Your task to perform on an android device: Go to settings Image 0: 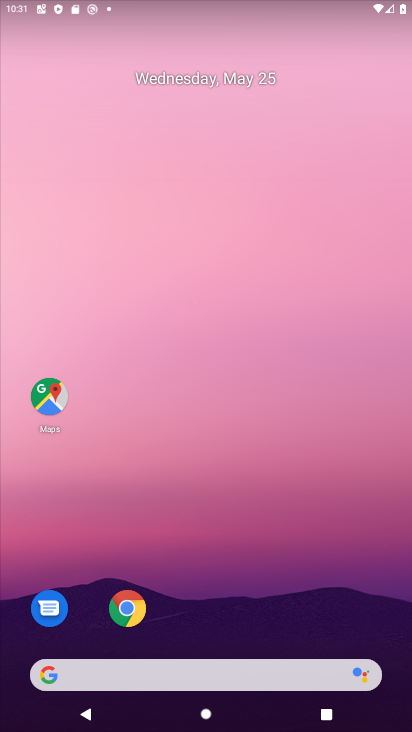
Step 0: drag from (265, 583) to (220, 122)
Your task to perform on an android device: Go to settings Image 1: 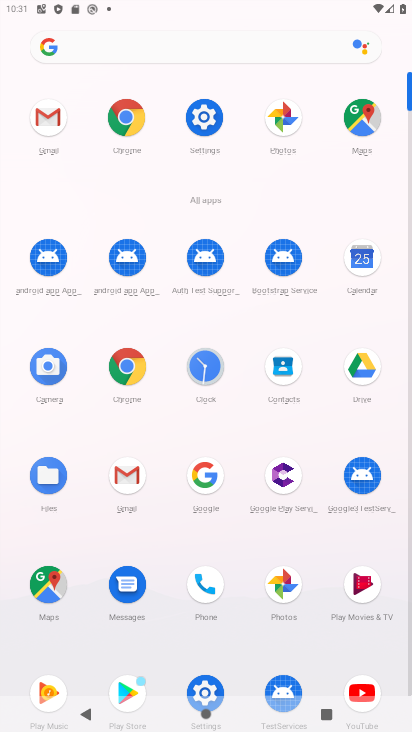
Step 1: click (205, 115)
Your task to perform on an android device: Go to settings Image 2: 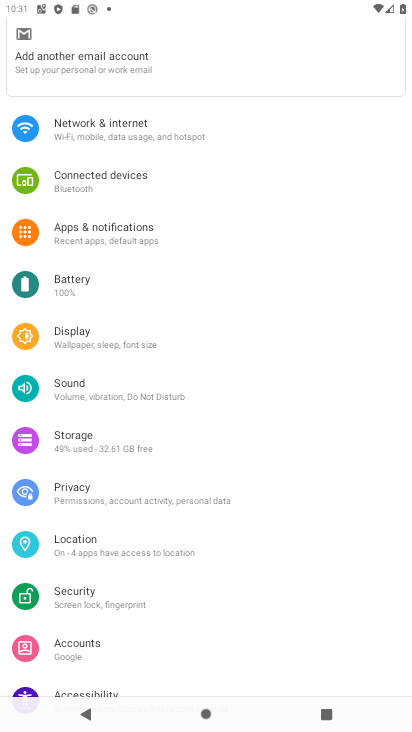
Step 2: task complete